Your task to perform on an android device: Go to battery settings Image 0: 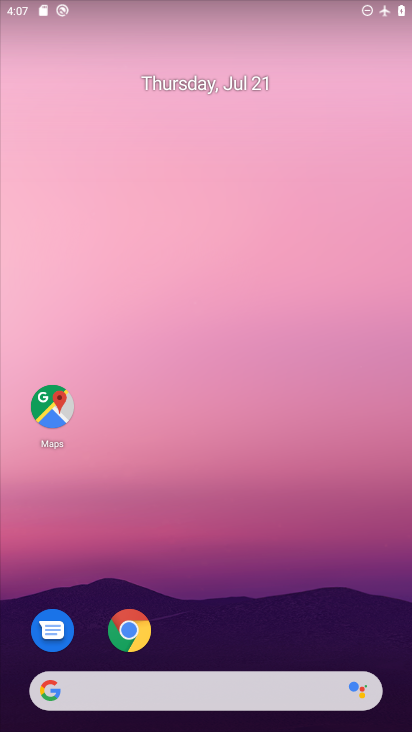
Step 0: drag from (206, 669) to (149, 0)
Your task to perform on an android device: Go to battery settings Image 1: 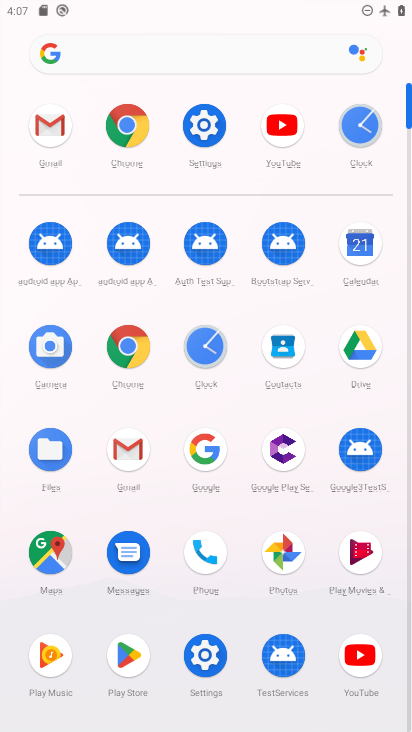
Step 1: click (186, 121)
Your task to perform on an android device: Go to battery settings Image 2: 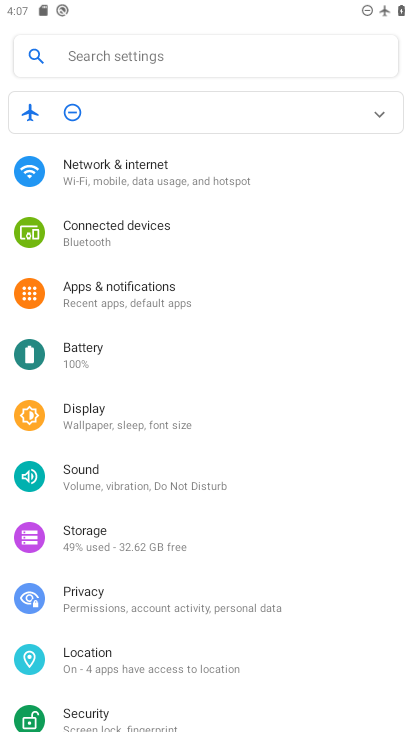
Step 2: drag from (157, 629) to (156, 377)
Your task to perform on an android device: Go to battery settings Image 3: 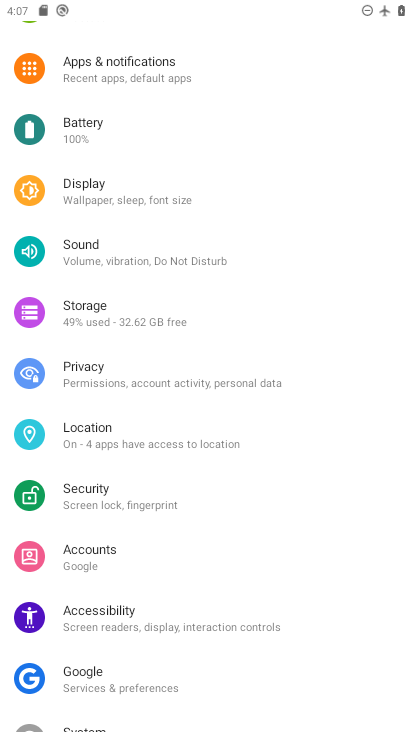
Step 3: click (96, 131)
Your task to perform on an android device: Go to battery settings Image 4: 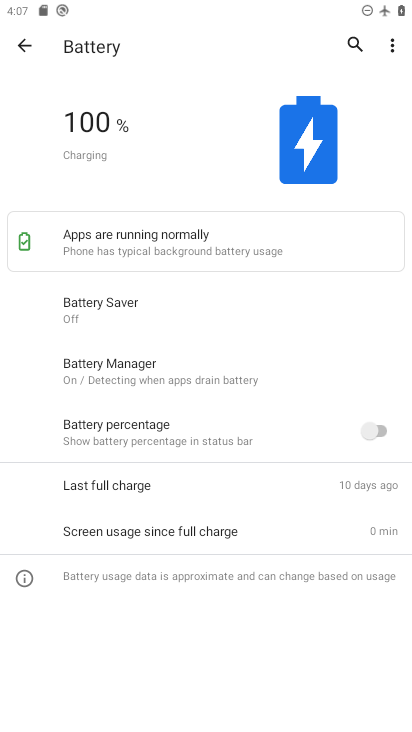
Step 4: task complete